Your task to perform on an android device: open app "Duolingo: language lessons" (install if not already installed) Image 0: 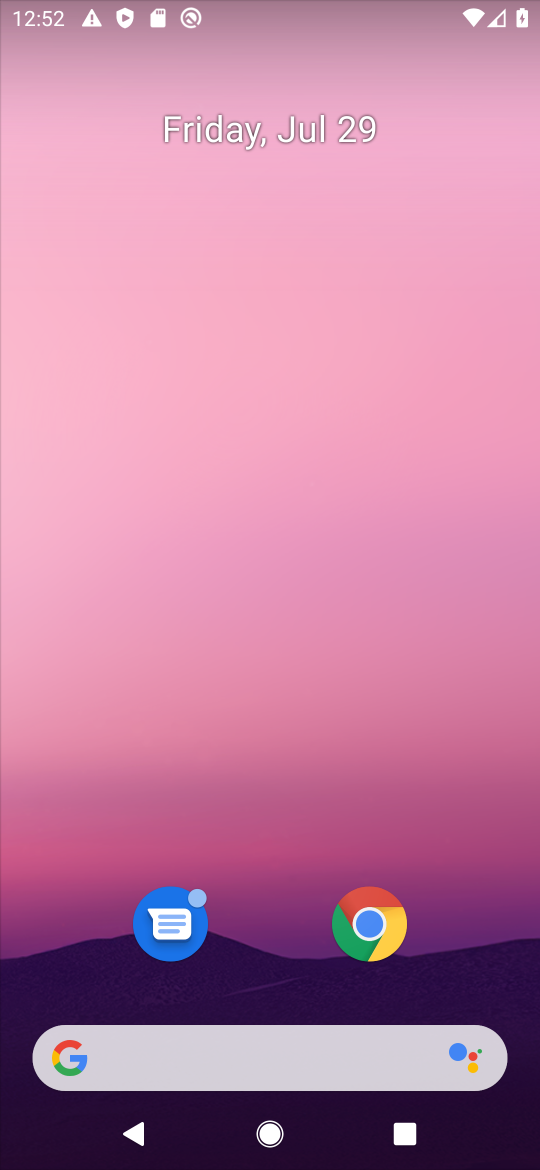
Step 0: drag from (246, 930) to (195, 258)
Your task to perform on an android device: open app "Duolingo: language lessons" (install if not already installed) Image 1: 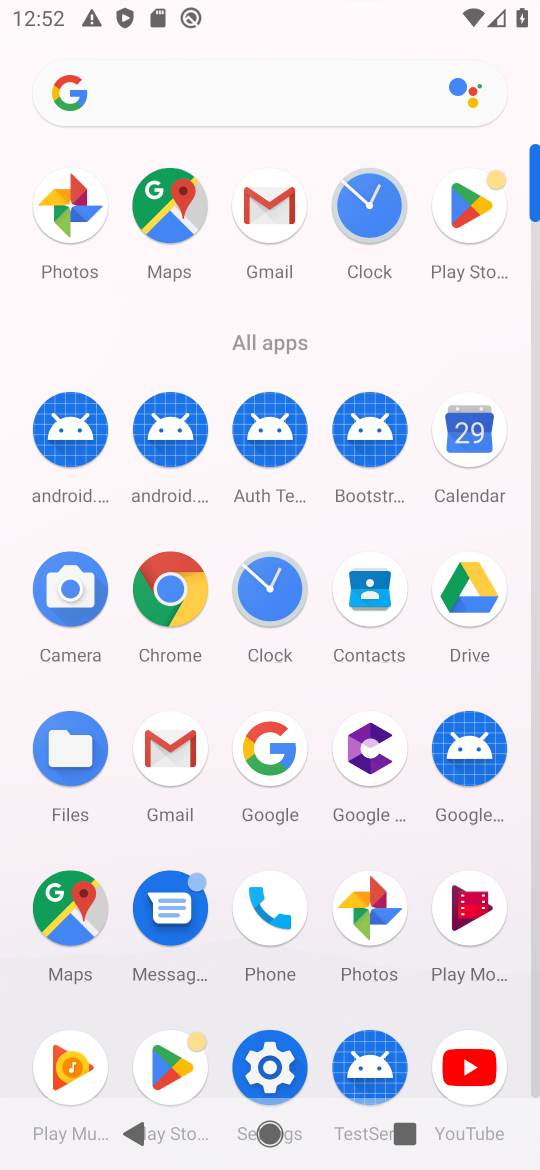
Step 1: click (466, 212)
Your task to perform on an android device: open app "Duolingo: language lessons" (install if not already installed) Image 2: 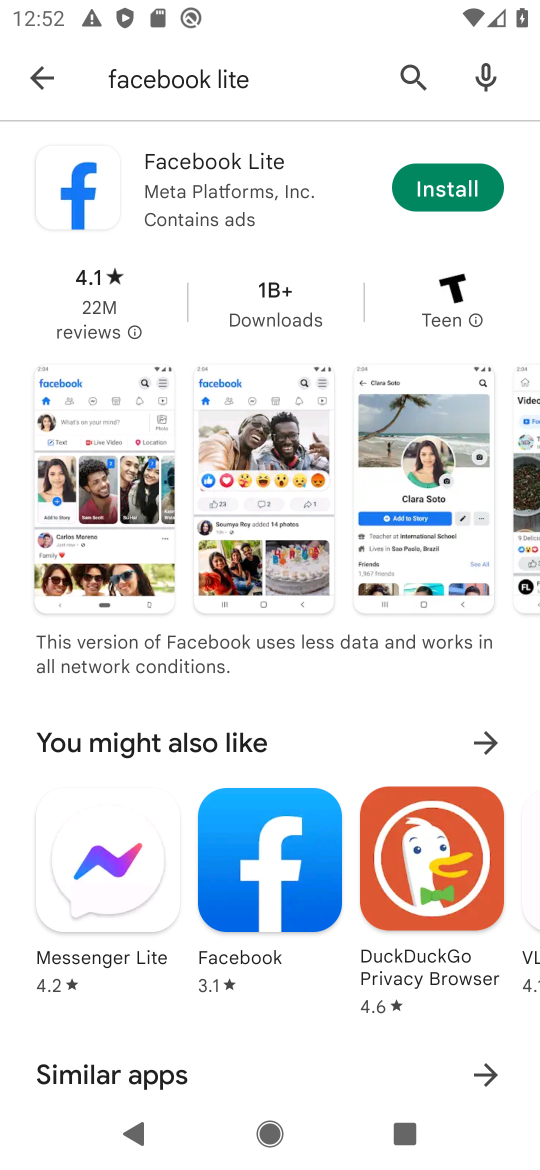
Step 2: click (420, 74)
Your task to perform on an android device: open app "Duolingo: language lessons" (install if not already installed) Image 3: 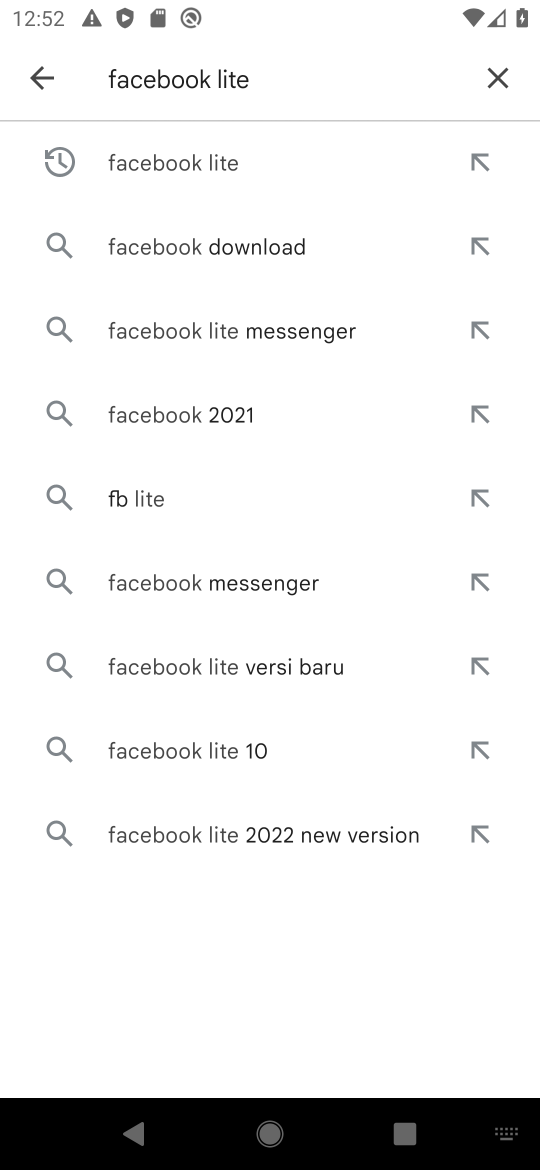
Step 3: click (482, 77)
Your task to perform on an android device: open app "Duolingo: language lessons" (install if not already installed) Image 4: 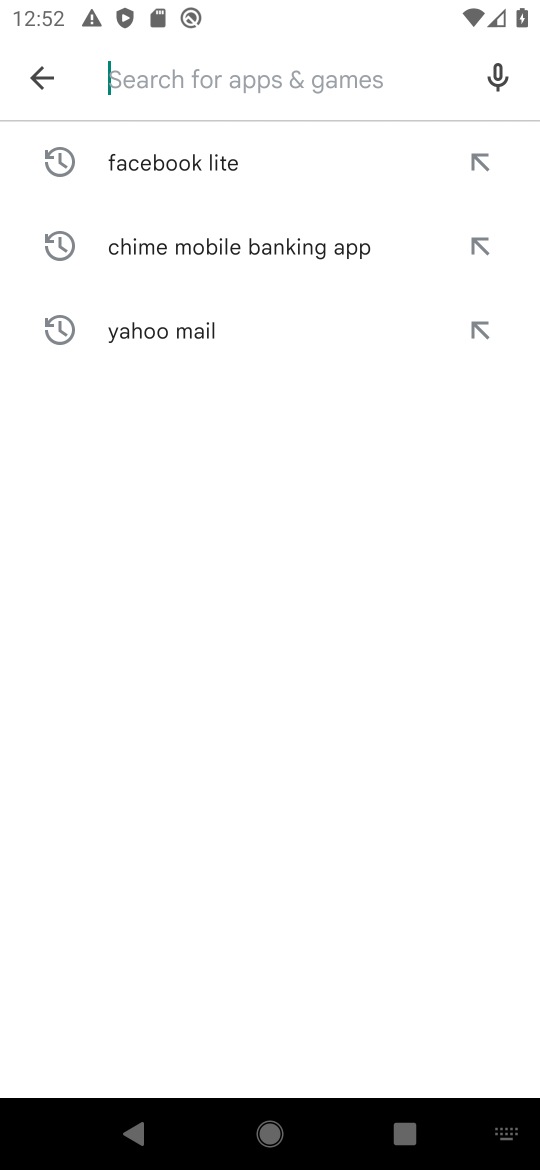
Step 4: type "Duolingo: language lessons"
Your task to perform on an android device: open app "Duolingo: language lessons" (install if not already installed) Image 5: 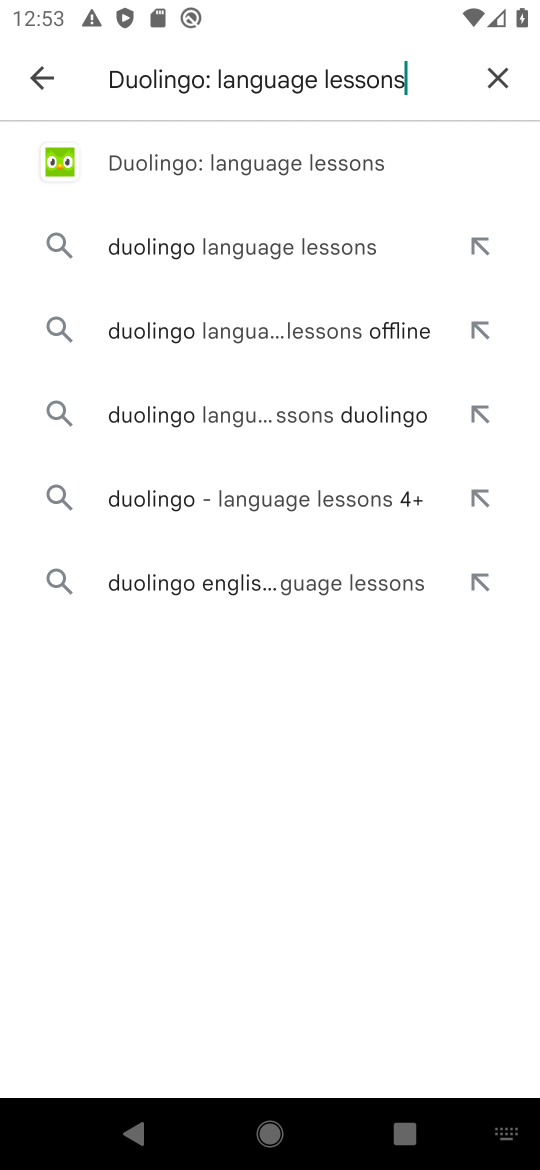
Step 5: click (283, 172)
Your task to perform on an android device: open app "Duolingo: language lessons" (install if not already installed) Image 6: 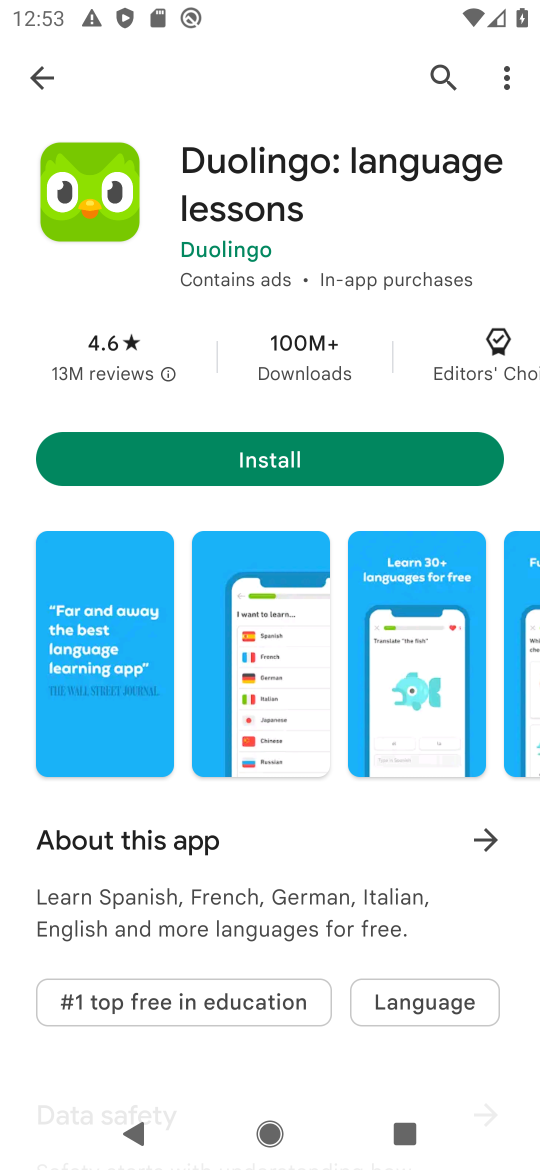
Step 6: click (265, 453)
Your task to perform on an android device: open app "Duolingo: language lessons" (install if not already installed) Image 7: 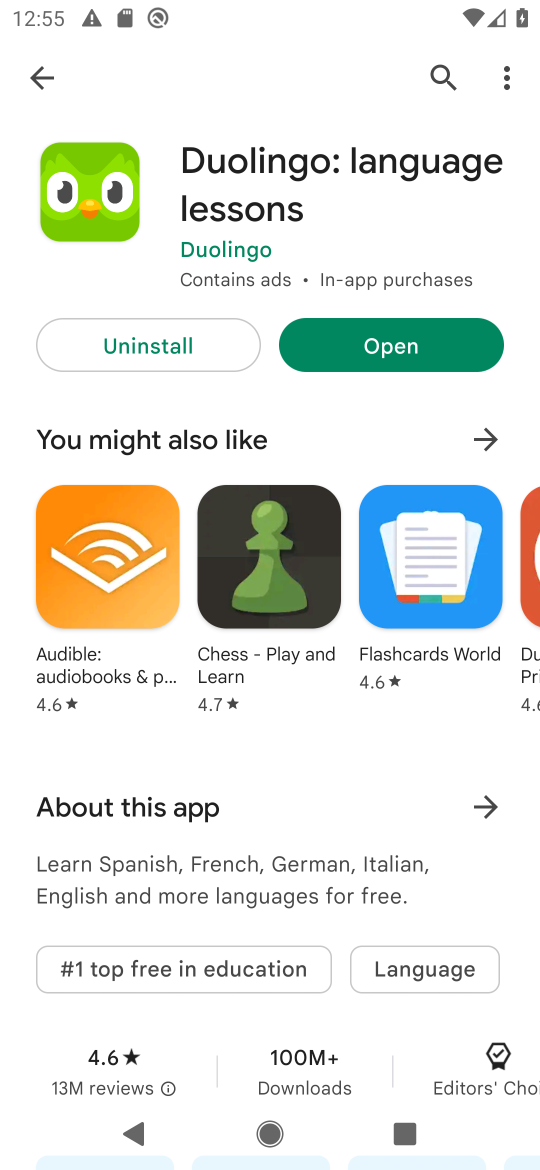
Step 7: click (454, 359)
Your task to perform on an android device: open app "Duolingo: language lessons" (install if not already installed) Image 8: 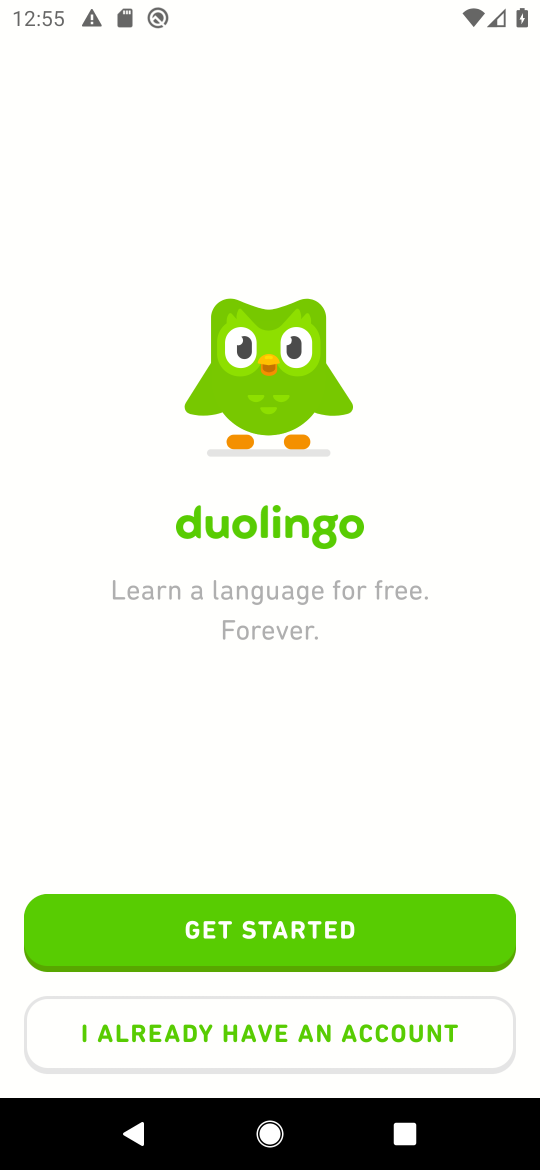
Step 8: task complete